Your task to perform on an android device: Go to notification settings Image 0: 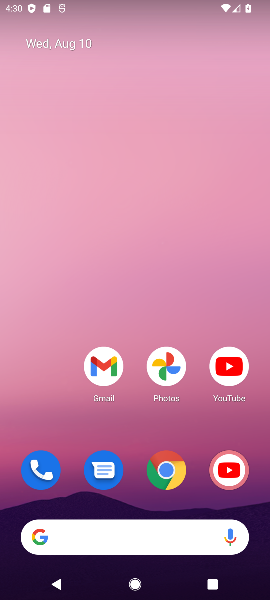
Step 0: press home button
Your task to perform on an android device: Go to notification settings Image 1: 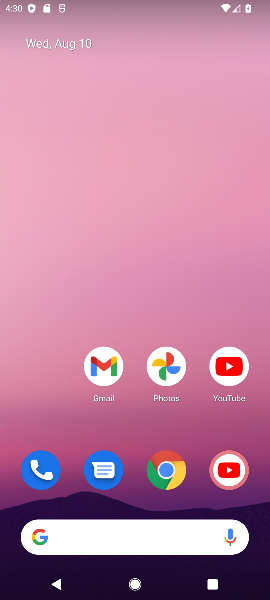
Step 1: drag from (146, 414) to (140, 95)
Your task to perform on an android device: Go to notification settings Image 2: 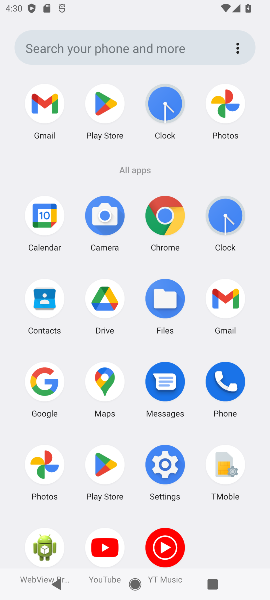
Step 2: click (180, 468)
Your task to perform on an android device: Go to notification settings Image 3: 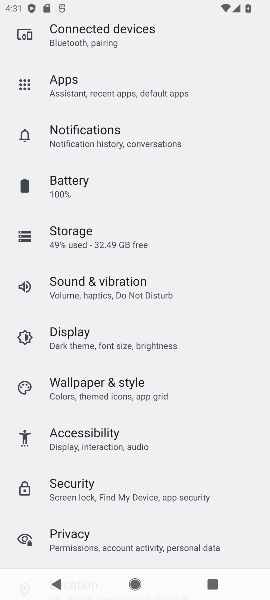
Step 3: click (47, 135)
Your task to perform on an android device: Go to notification settings Image 4: 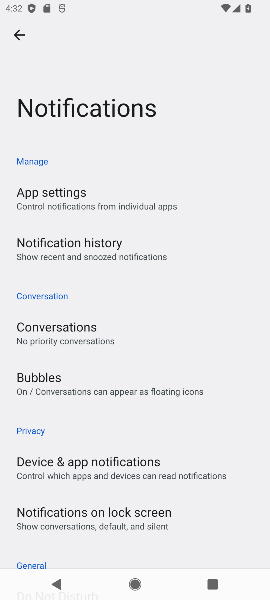
Step 4: task complete